Your task to perform on an android device: check out phone information Image 0: 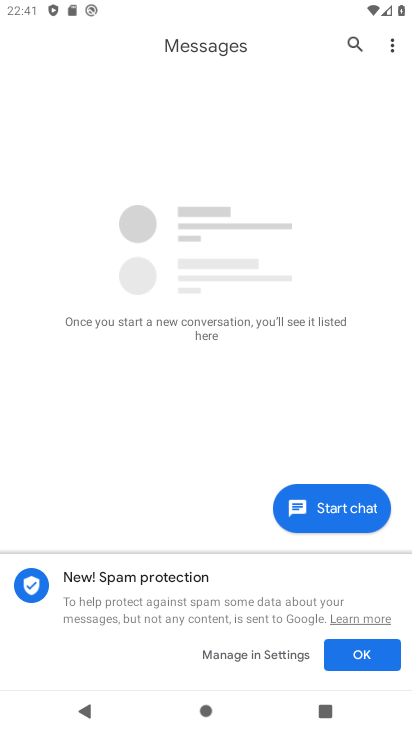
Step 0: press home button
Your task to perform on an android device: check out phone information Image 1: 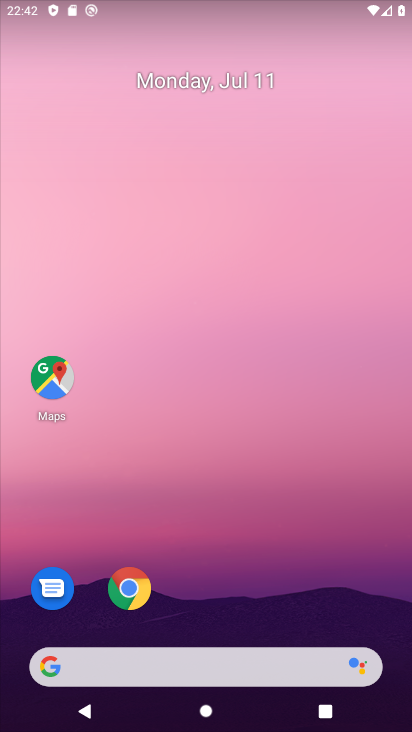
Step 1: drag from (230, 503) to (249, 27)
Your task to perform on an android device: check out phone information Image 2: 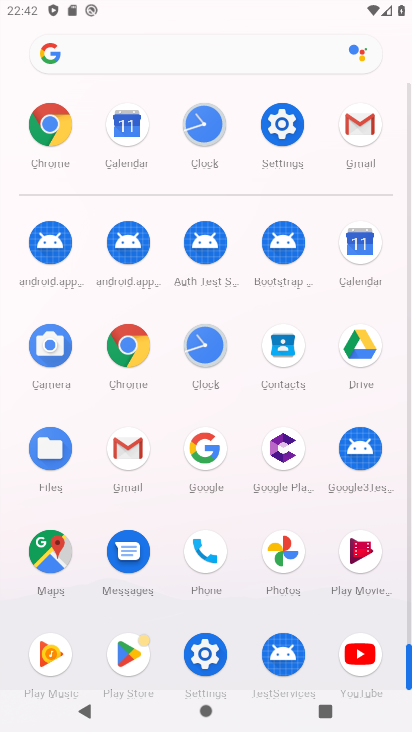
Step 2: click (283, 124)
Your task to perform on an android device: check out phone information Image 3: 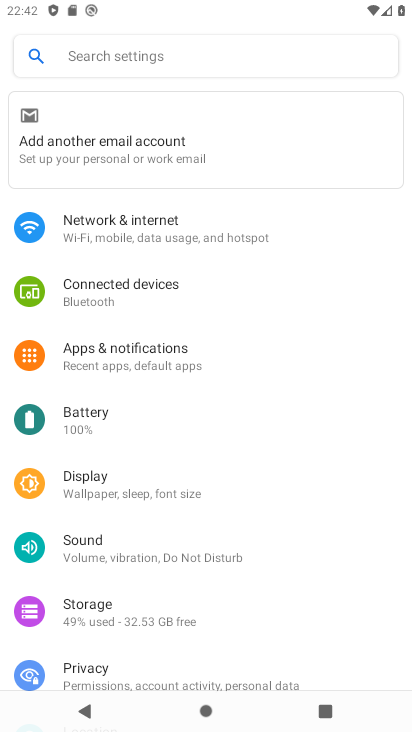
Step 3: drag from (238, 607) to (238, 215)
Your task to perform on an android device: check out phone information Image 4: 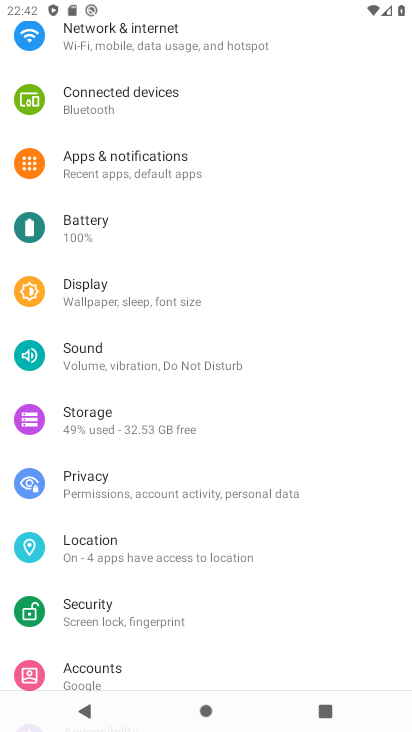
Step 4: drag from (252, 604) to (248, 211)
Your task to perform on an android device: check out phone information Image 5: 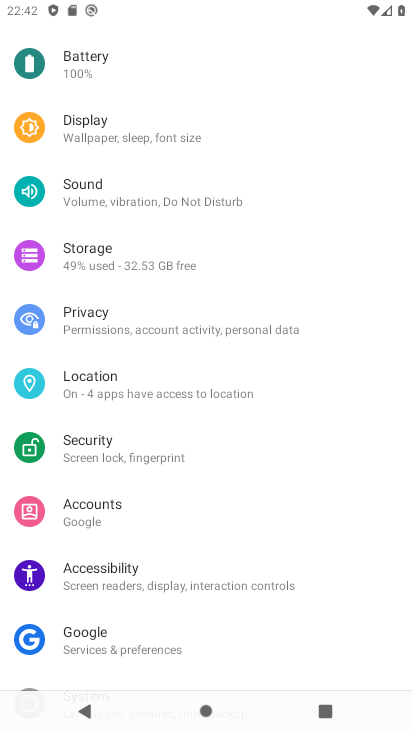
Step 5: drag from (217, 485) to (164, 151)
Your task to perform on an android device: check out phone information Image 6: 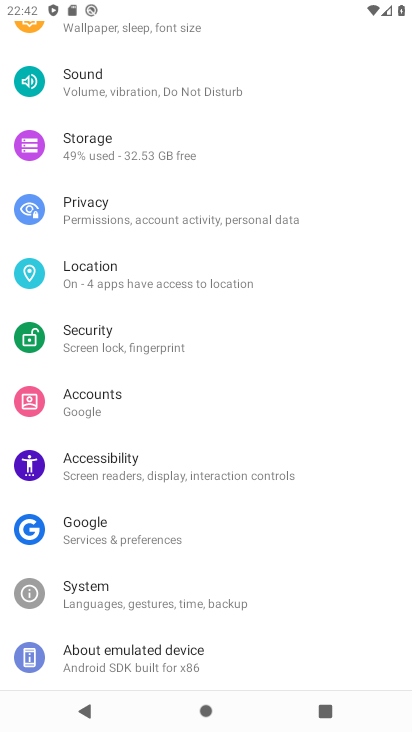
Step 6: click (142, 650)
Your task to perform on an android device: check out phone information Image 7: 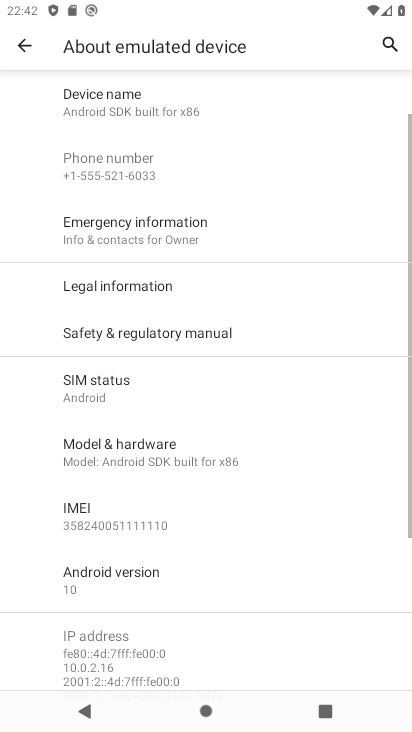
Step 7: task complete